Your task to perform on an android device: Go to settings Image 0: 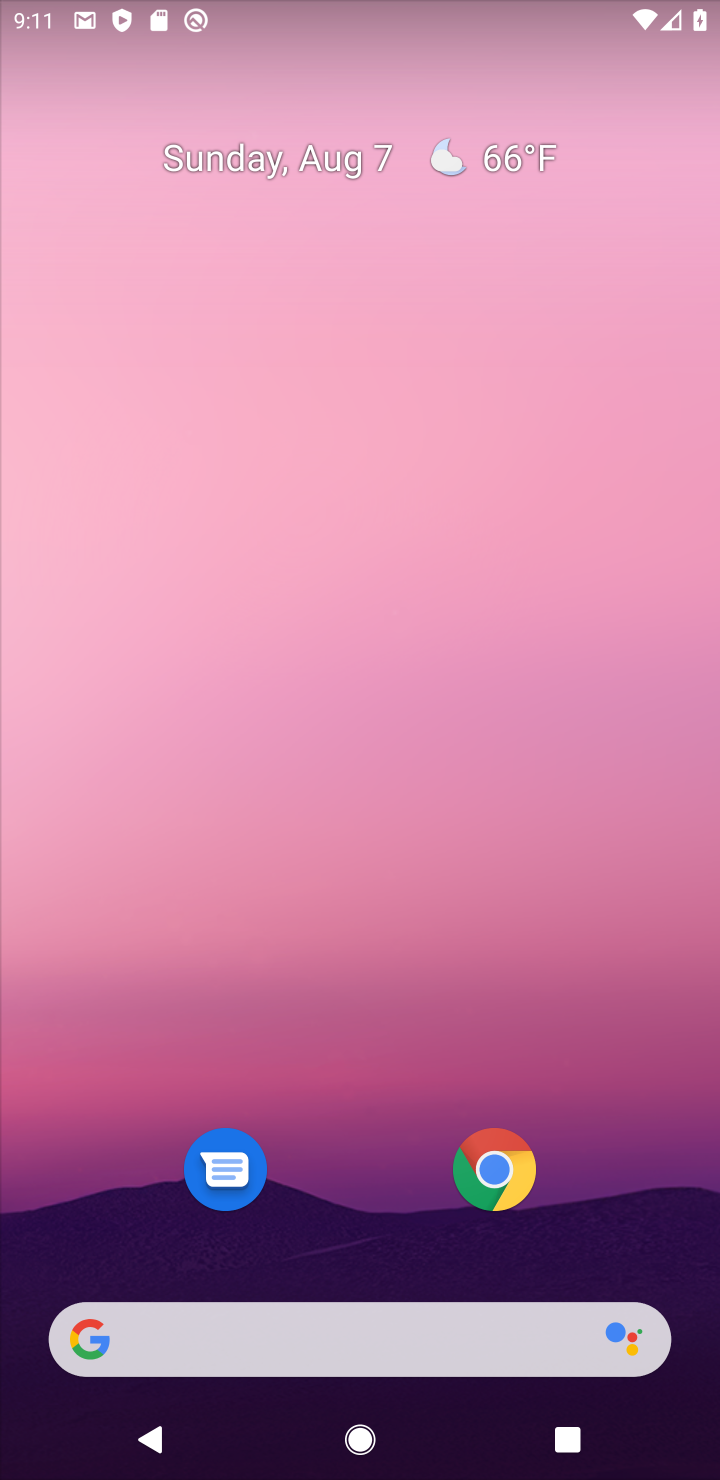
Step 0: drag from (416, 1161) to (548, 600)
Your task to perform on an android device: Go to settings Image 1: 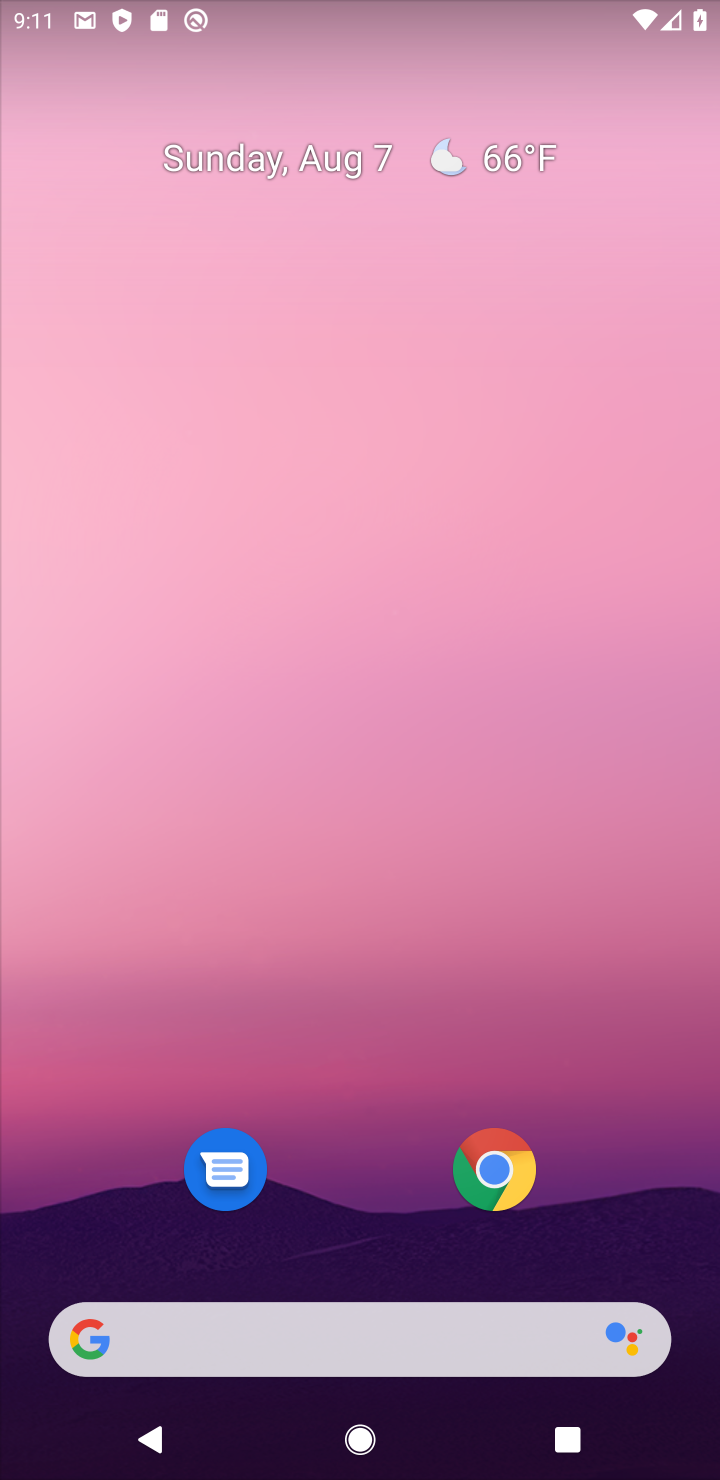
Step 1: drag from (371, 1153) to (487, 26)
Your task to perform on an android device: Go to settings Image 2: 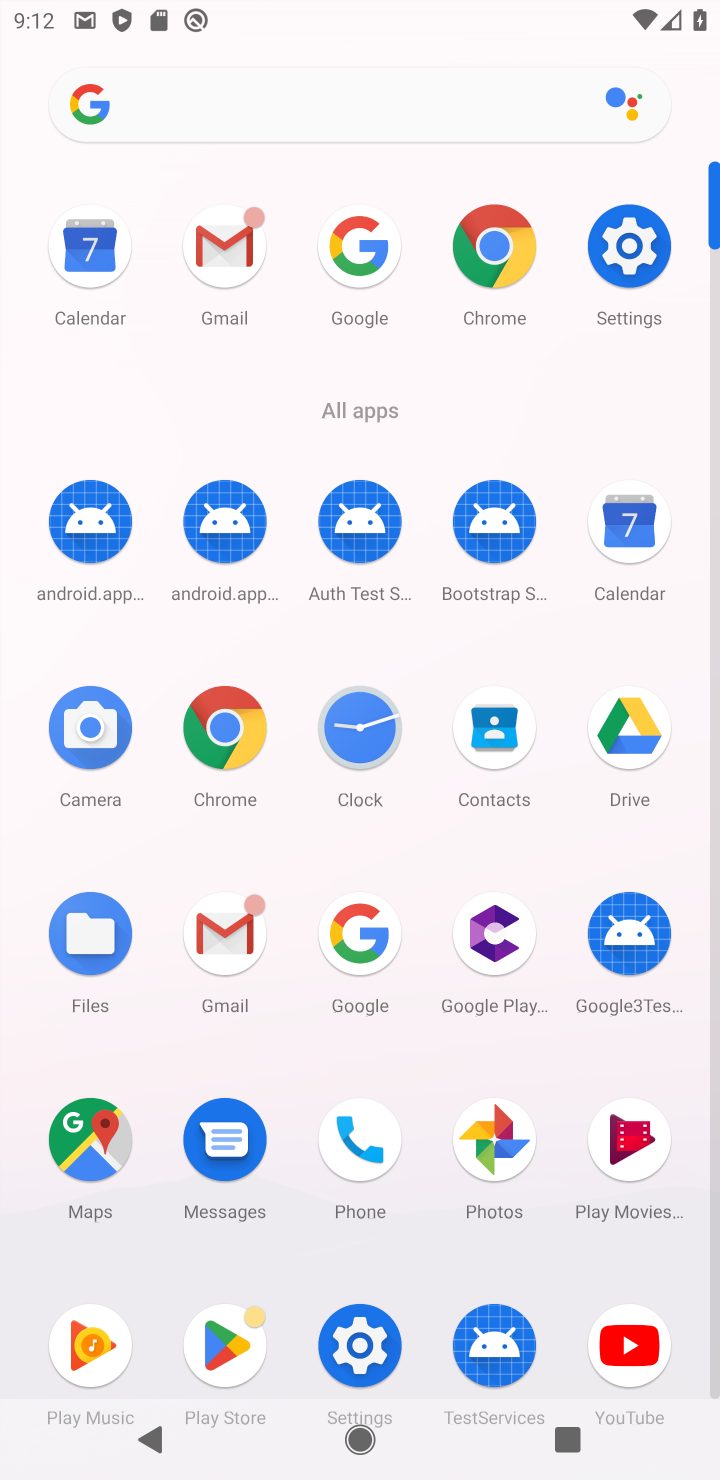
Step 2: click (382, 1346)
Your task to perform on an android device: Go to settings Image 3: 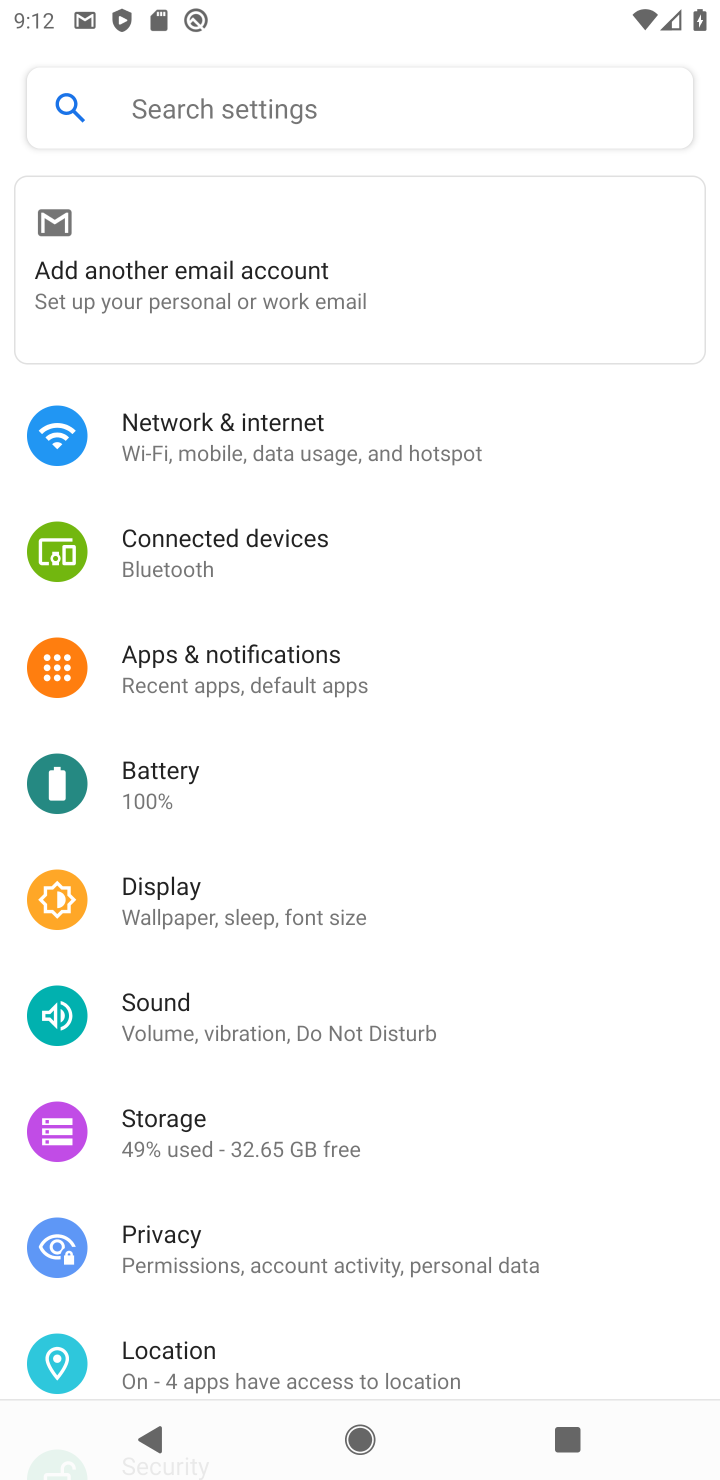
Step 3: task complete